Your task to perform on an android device: Open Amazon Image 0: 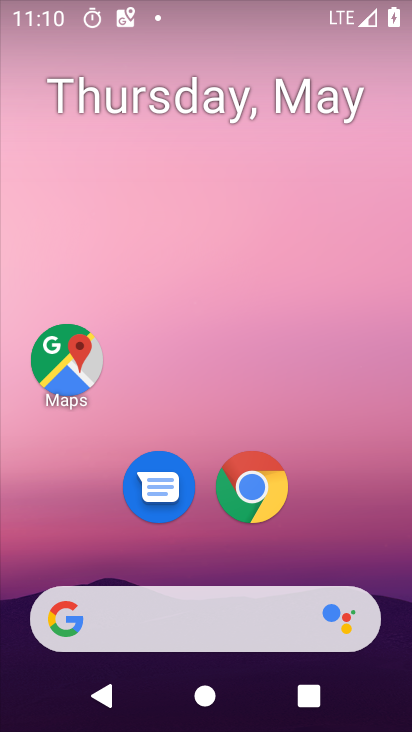
Step 0: drag from (245, 603) to (249, 56)
Your task to perform on an android device: Open Amazon Image 1: 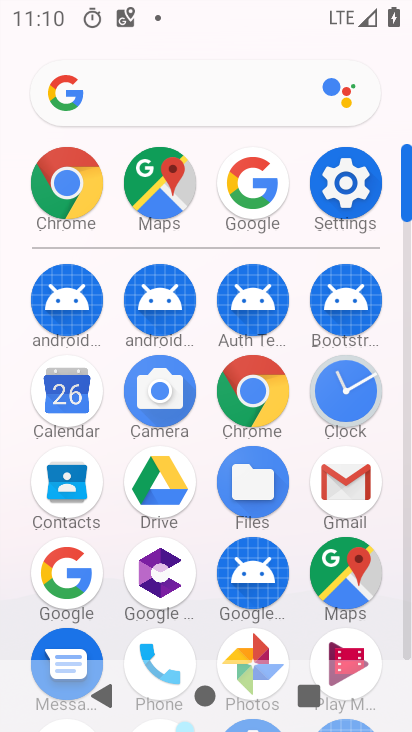
Step 1: click (259, 434)
Your task to perform on an android device: Open Amazon Image 2: 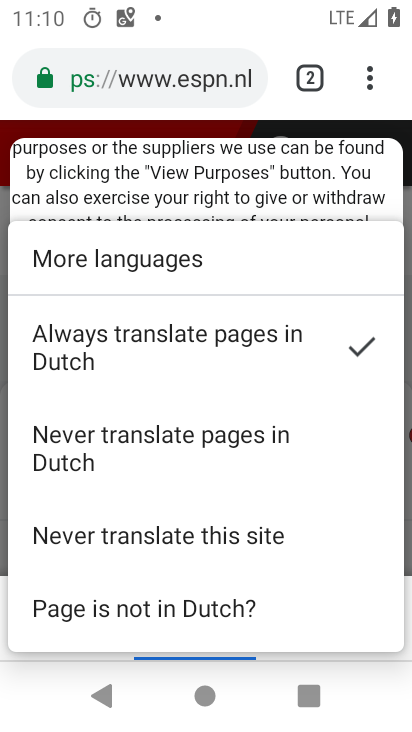
Step 2: click (220, 85)
Your task to perform on an android device: Open Amazon Image 3: 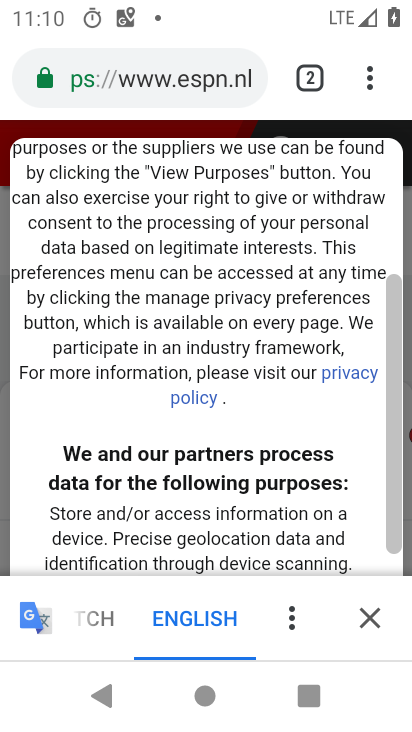
Step 3: click (210, 84)
Your task to perform on an android device: Open Amazon Image 4: 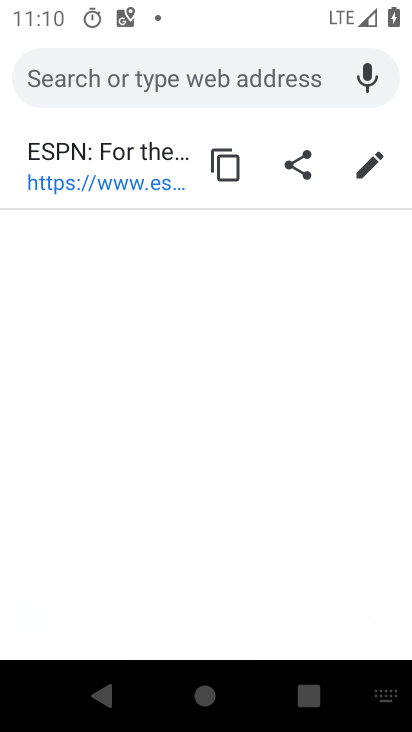
Step 4: type "amazon"
Your task to perform on an android device: Open Amazon Image 5: 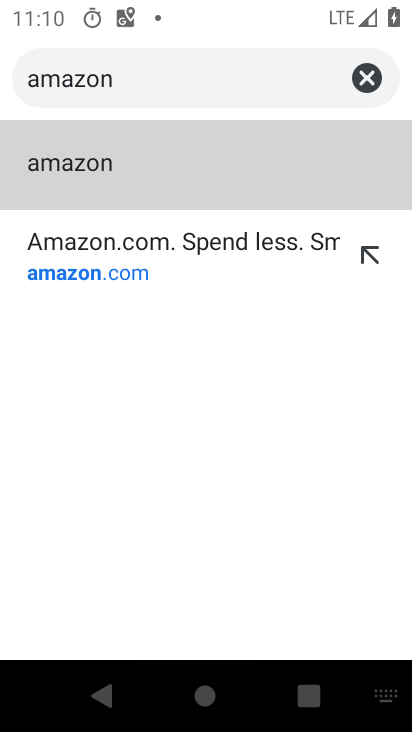
Step 5: click (133, 269)
Your task to perform on an android device: Open Amazon Image 6: 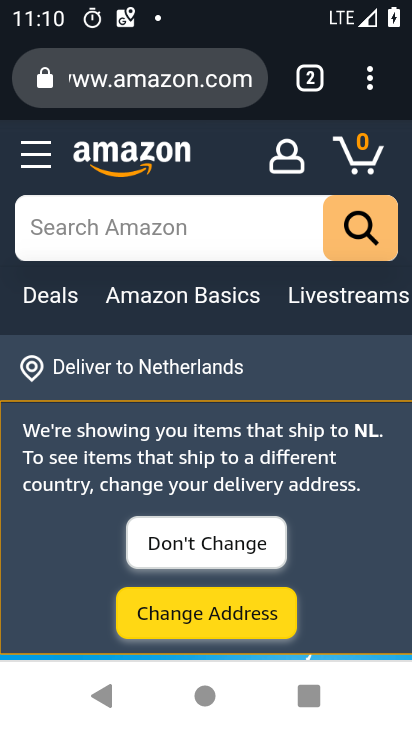
Step 6: task complete